Your task to perform on an android device: create a new album in the google photos Image 0: 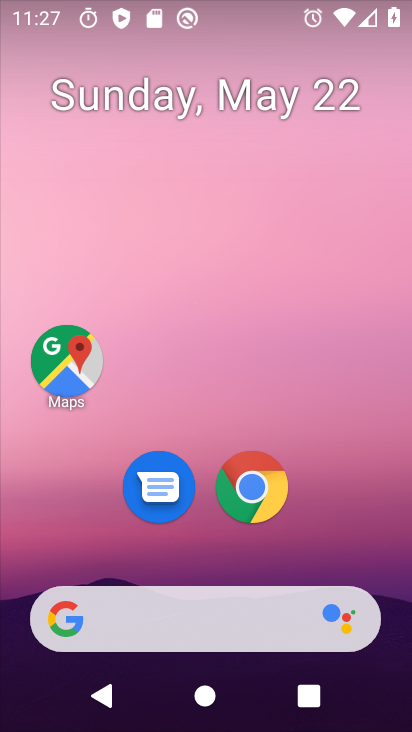
Step 0: drag from (342, 544) to (320, 176)
Your task to perform on an android device: create a new album in the google photos Image 1: 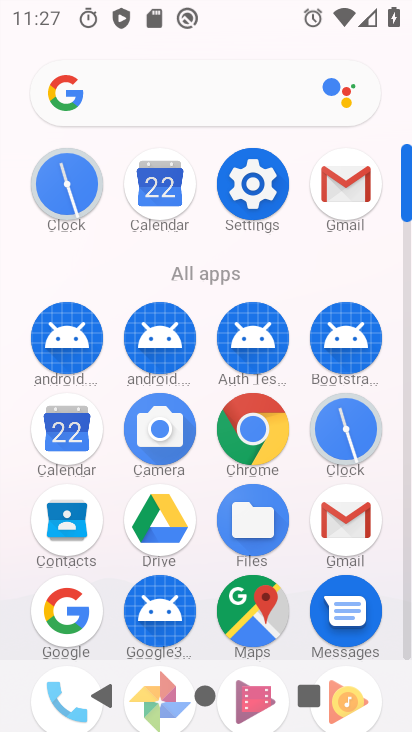
Step 1: drag from (198, 637) to (218, 327)
Your task to perform on an android device: create a new album in the google photos Image 2: 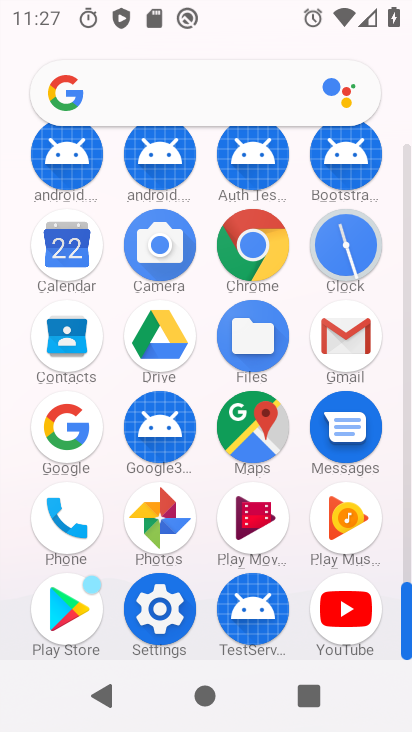
Step 2: click (160, 551)
Your task to perform on an android device: create a new album in the google photos Image 3: 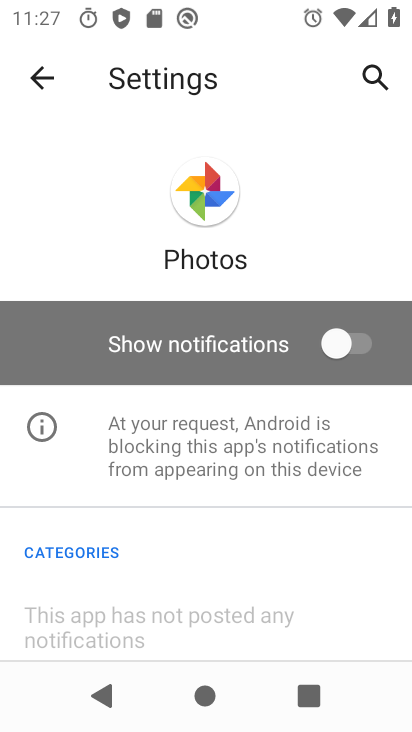
Step 3: drag from (175, 602) to (221, 316)
Your task to perform on an android device: create a new album in the google photos Image 4: 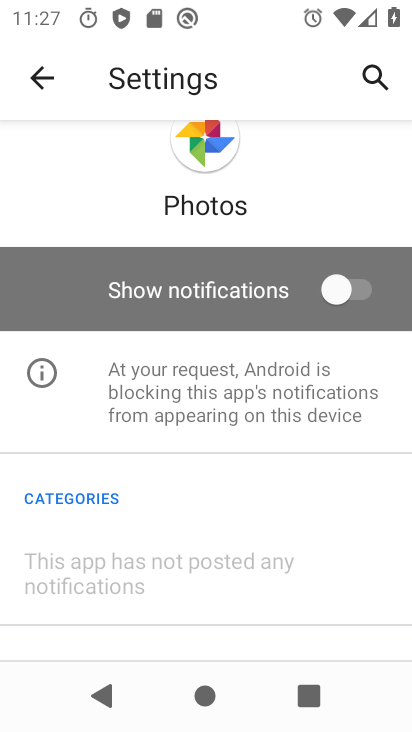
Step 4: click (33, 90)
Your task to perform on an android device: create a new album in the google photos Image 5: 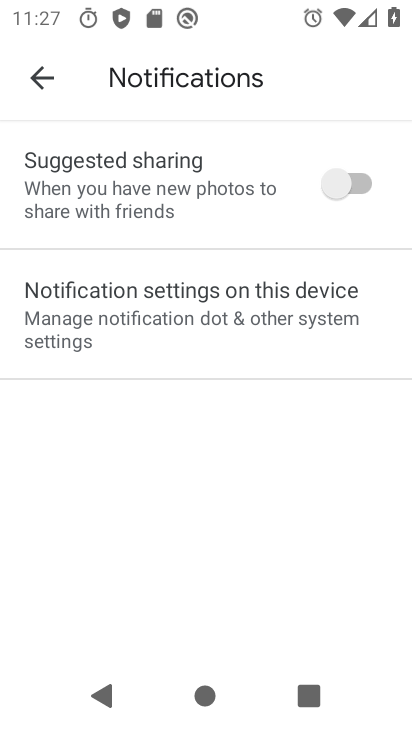
Step 5: click (33, 89)
Your task to perform on an android device: create a new album in the google photos Image 6: 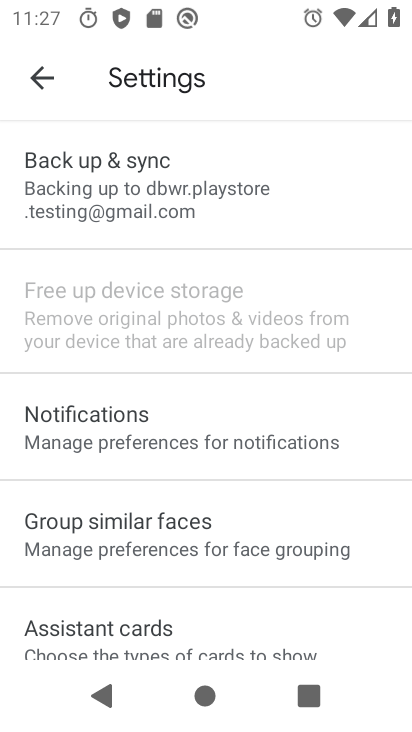
Step 6: click (33, 89)
Your task to perform on an android device: create a new album in the google photos Image 7: 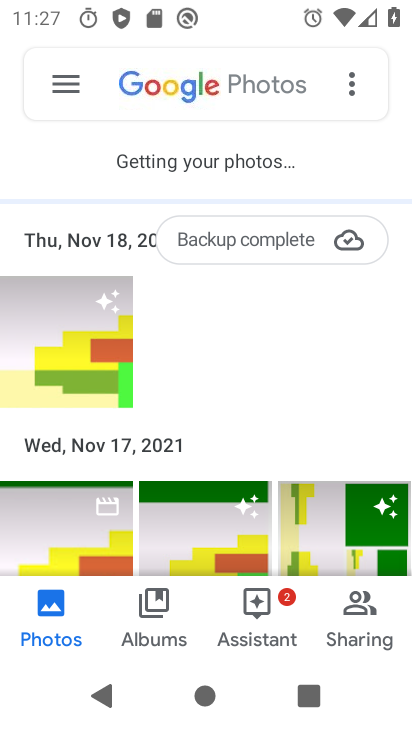
Step 7: click (163, 606)
Your task to perform on an android device: create a new album in the google photos Image 8: 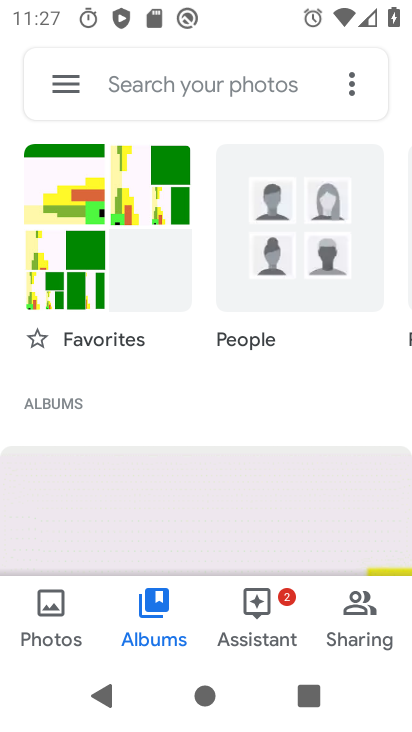
Step 8: task complete